Your task to perform on an android device: Search for energizer triple a on target.com, select the first entry, and add it to the cart. Image 0: 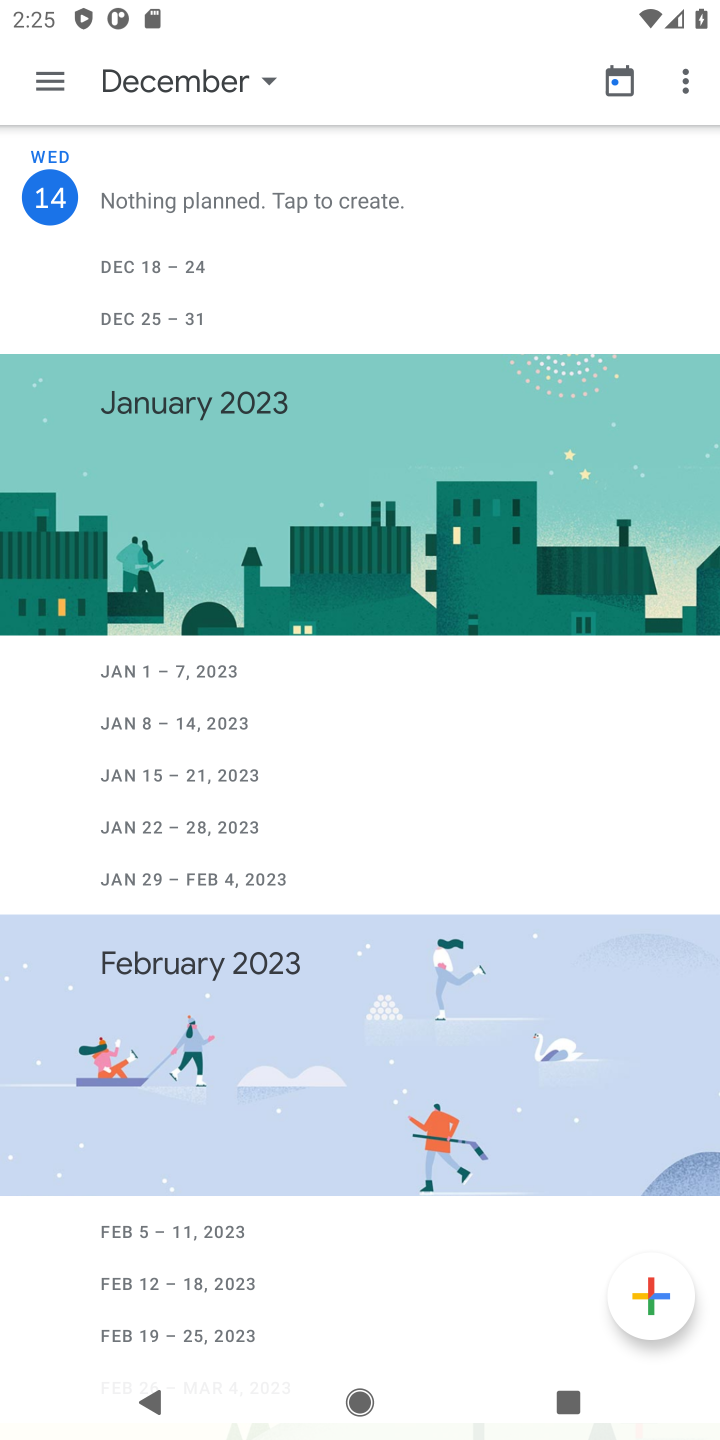
Step 0: press home button
Your task to perform on an android device: Search for energizer triple a on target.com, select the first entry, and add it to the cart. Image 1: 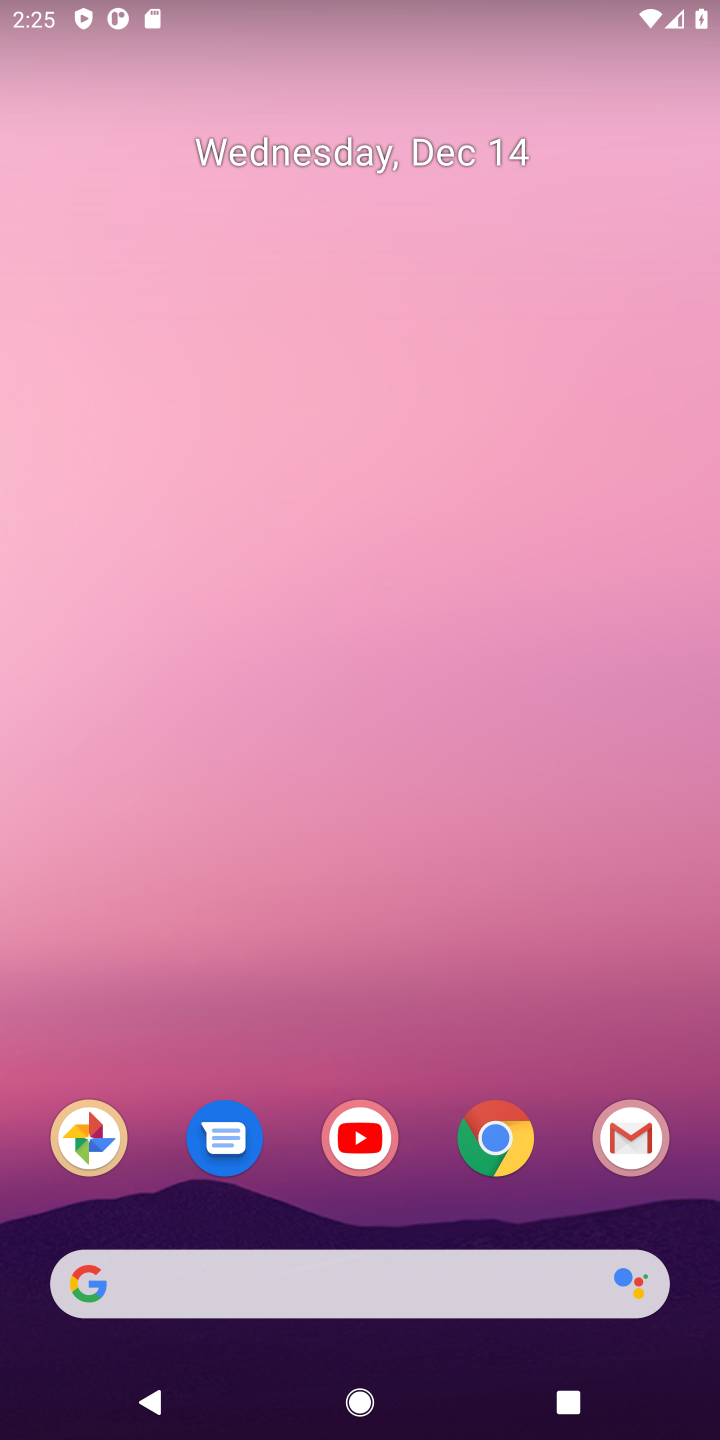
Step 1: click (509, 1147)
Your task to perform on an android device: Search for energizer triple a on target.com, select the first entry, and add it to the cart. Image 2: 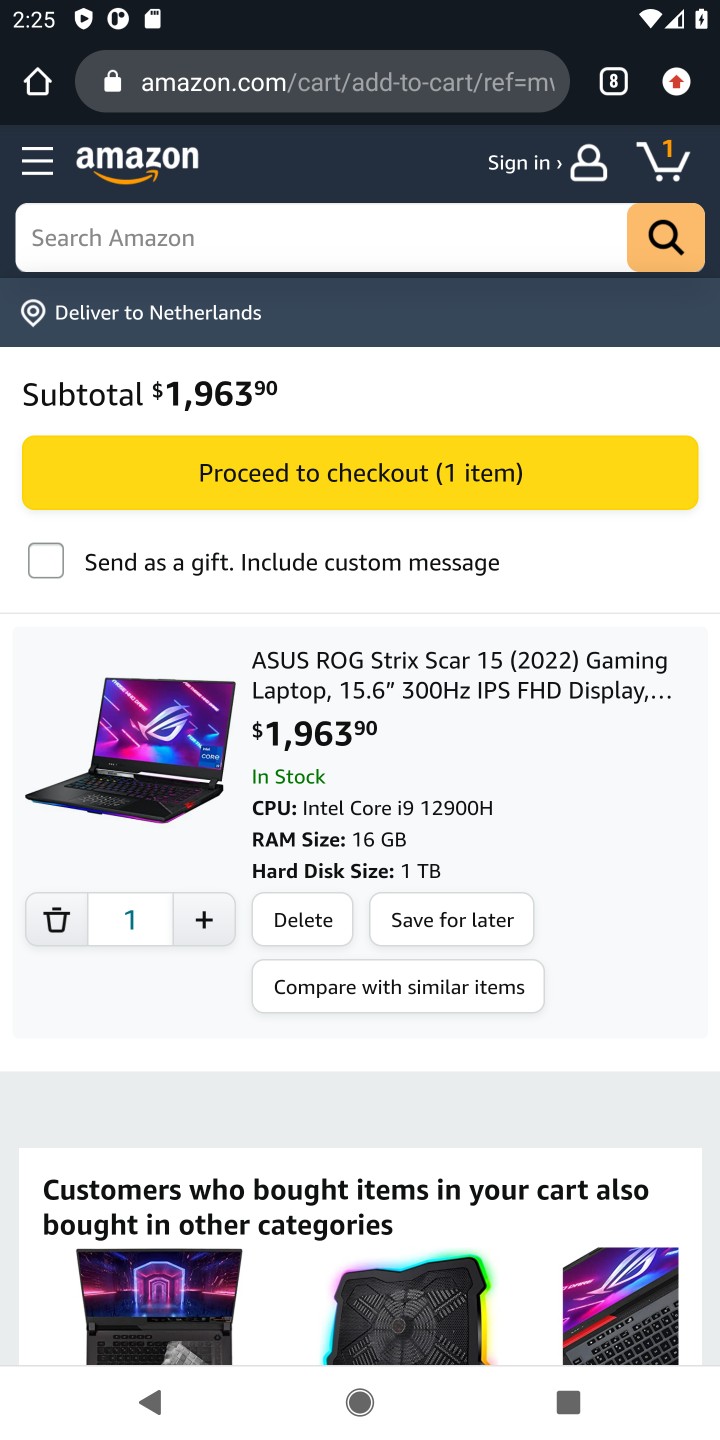
Step 2: click (626, 88)
Your task to perform on an android device: Search for energizer triple a on target.com, select the first entry, and add it to the cart. Image 3: 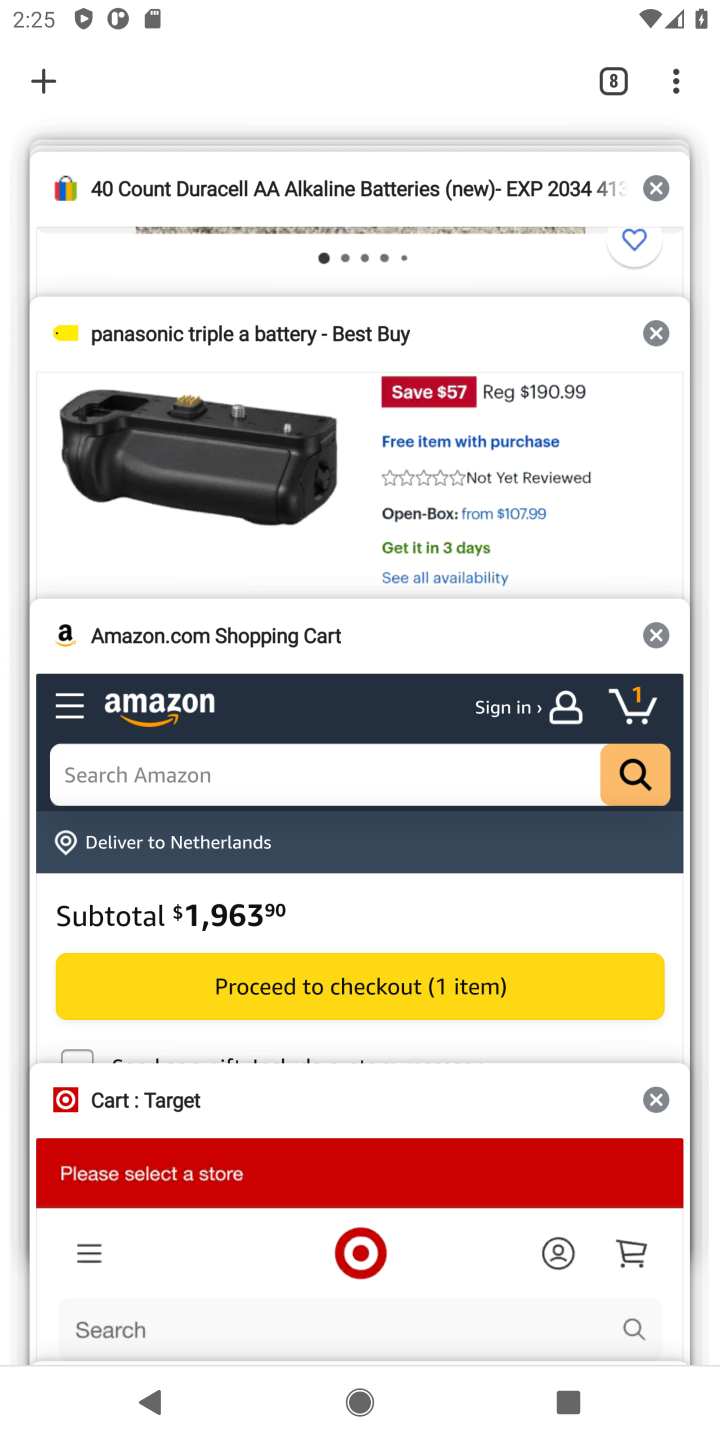
Step 3: click (150, 1163)
Your task to perform on an android device: Search for energizer triple a on target.com, select the first entry, and add it to the cart. Image 4: 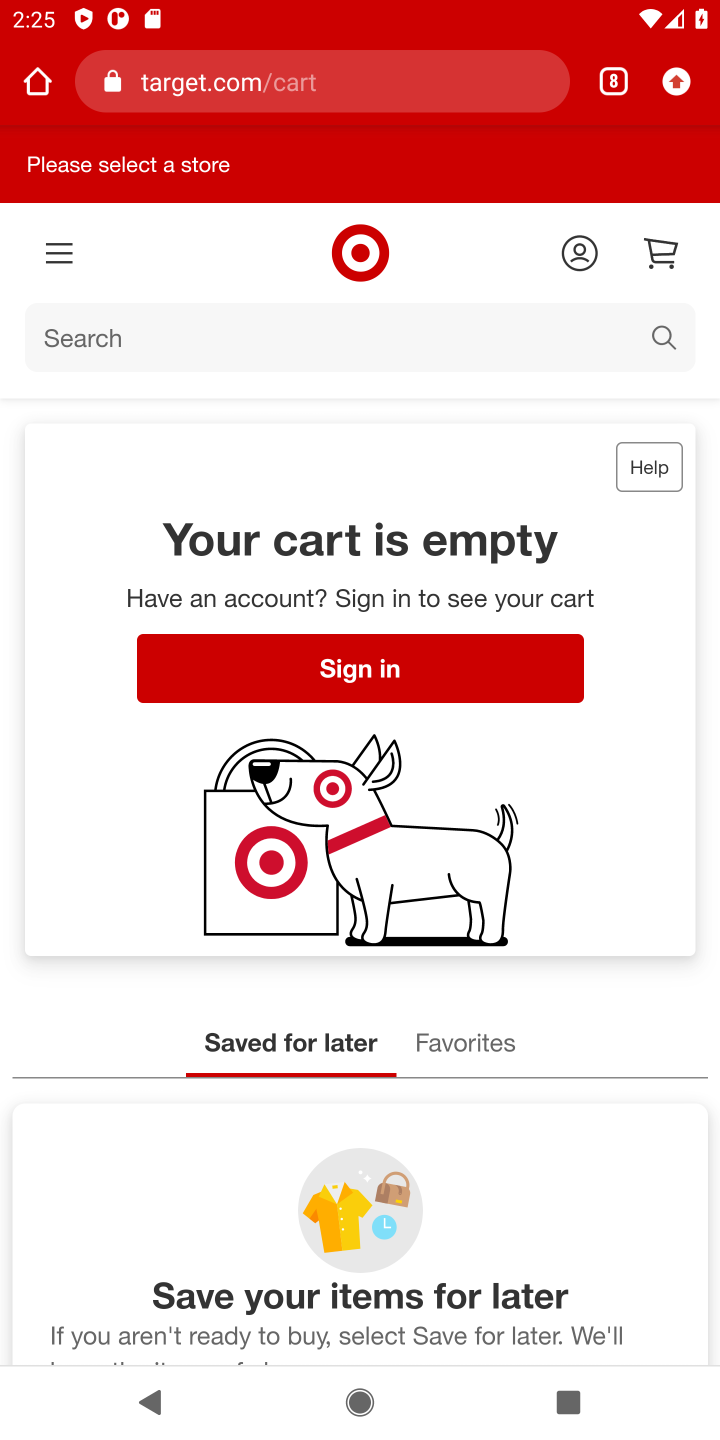
Step 4: click (189, 344)
Your task to perform on an android device: Search for energizer triple a on target.com, select the first entry, and add it to the cart. Image 5: 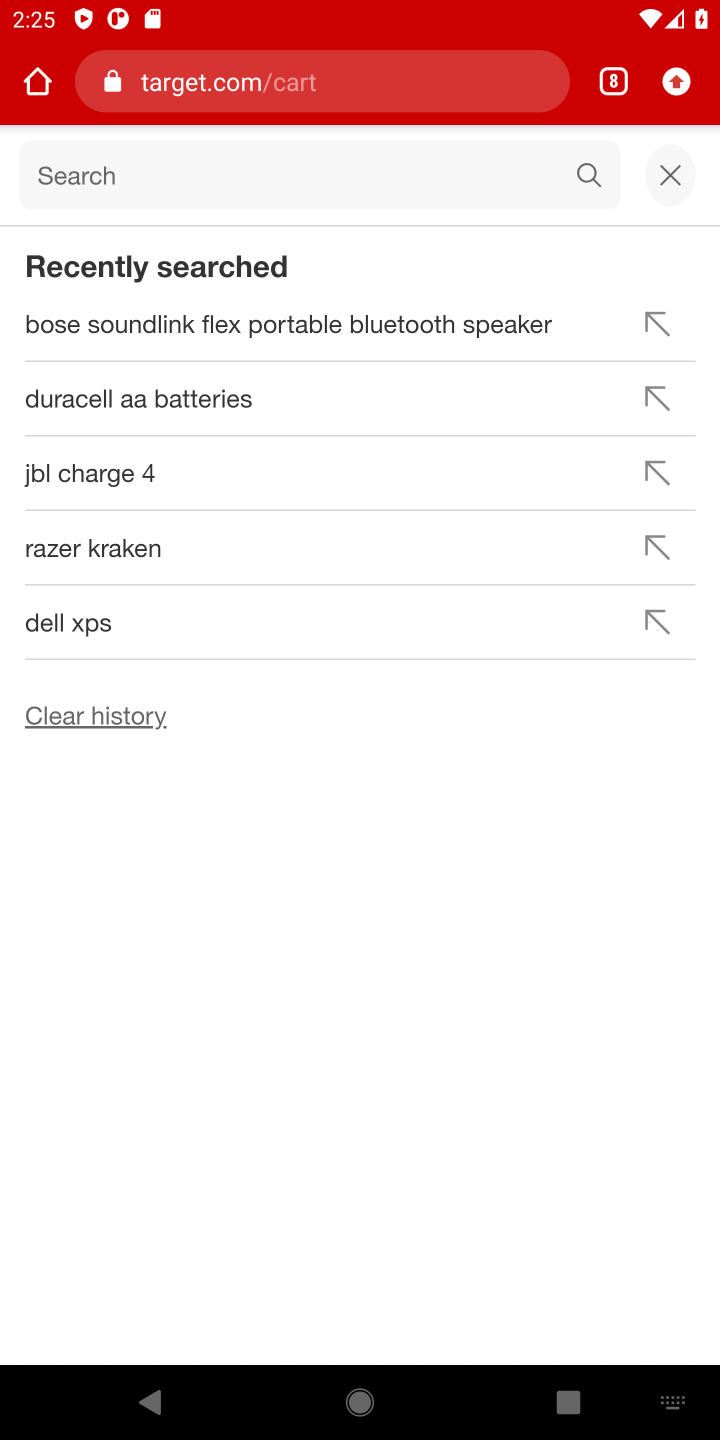
Step 5: type "energizer triple a"
Your task to perform on an android device: Search for energizer triple a on target.com, select the first entry, and add it to the cart. Image 6: 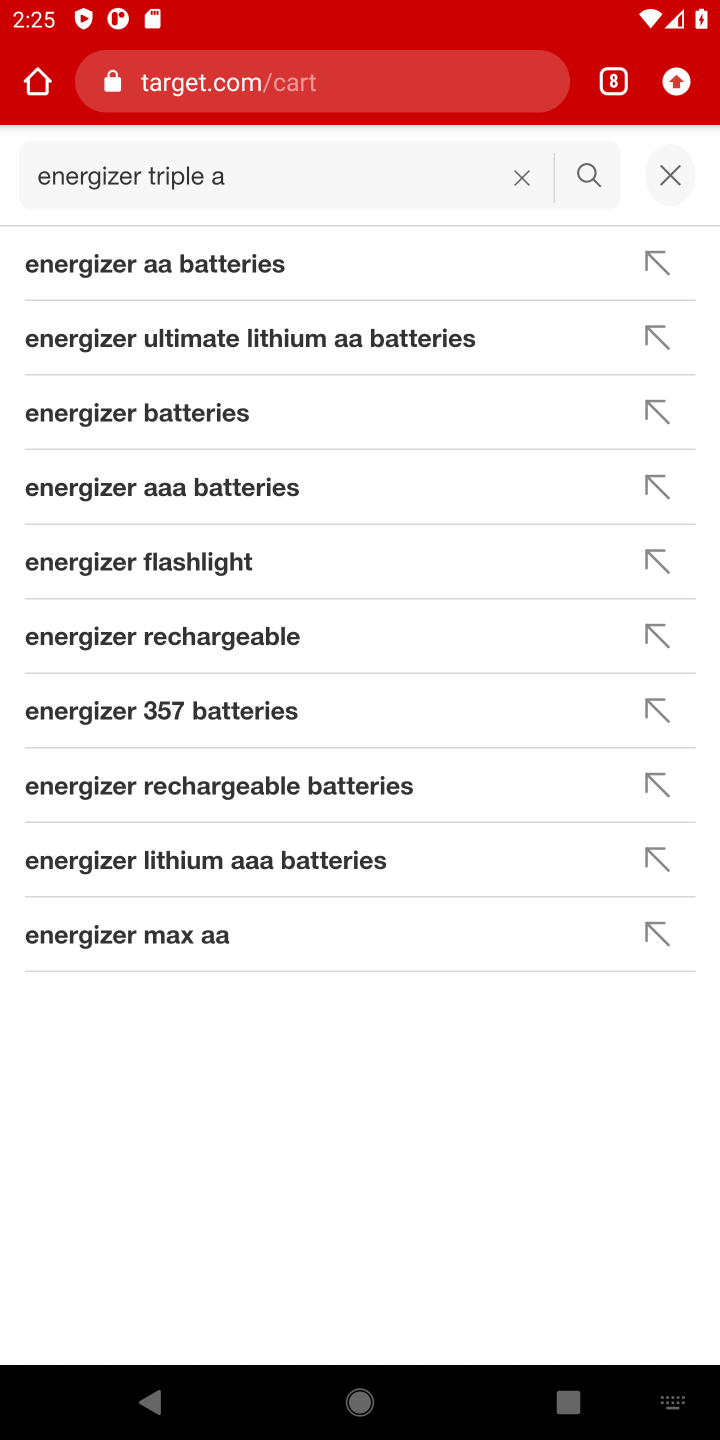
Step 6: click (201, 257)
Your task to perform on an android device: Search for energizer triple a on target.com, select the first entry, and add it to the cart. Image 7: 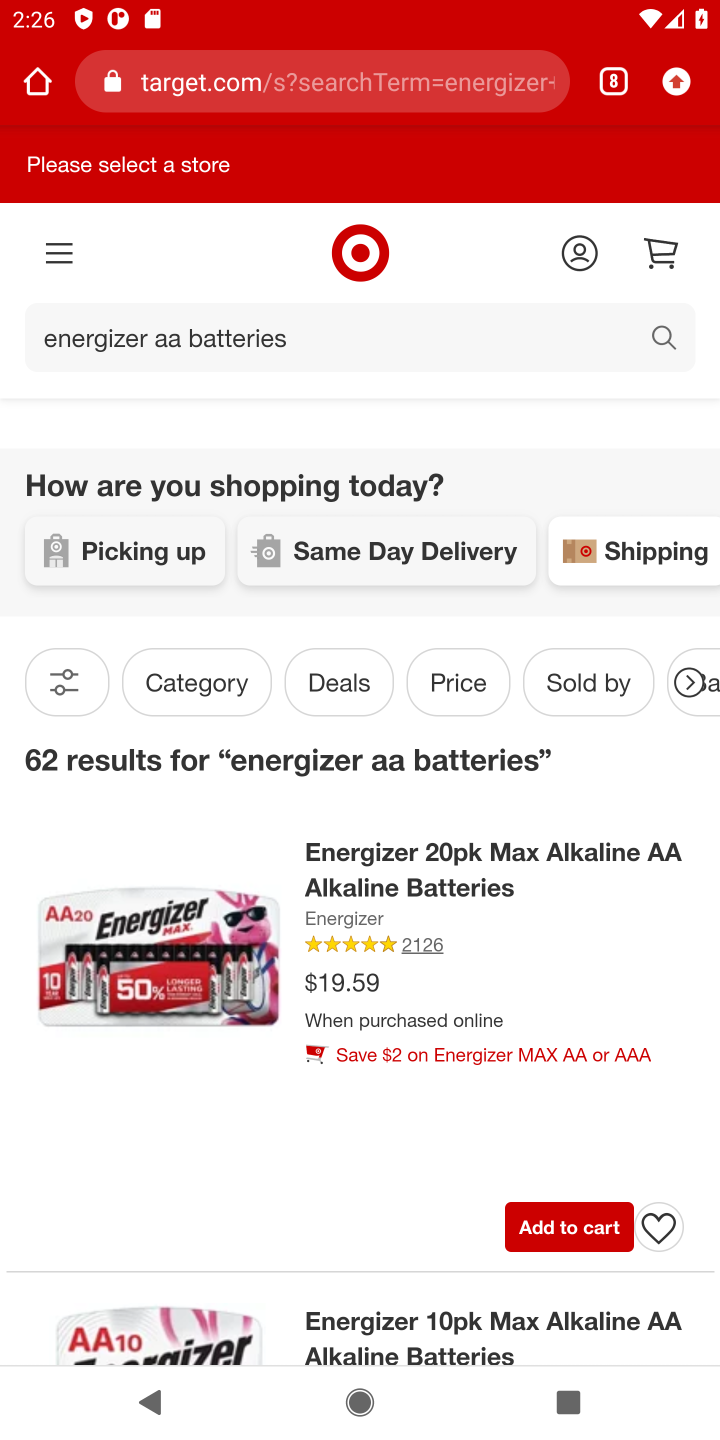
Step 7: click (568, 1219)
Your task to perform on an android device: Search for energizer triple a on target.com, select the first entry, and add it to the cart. Image 8: 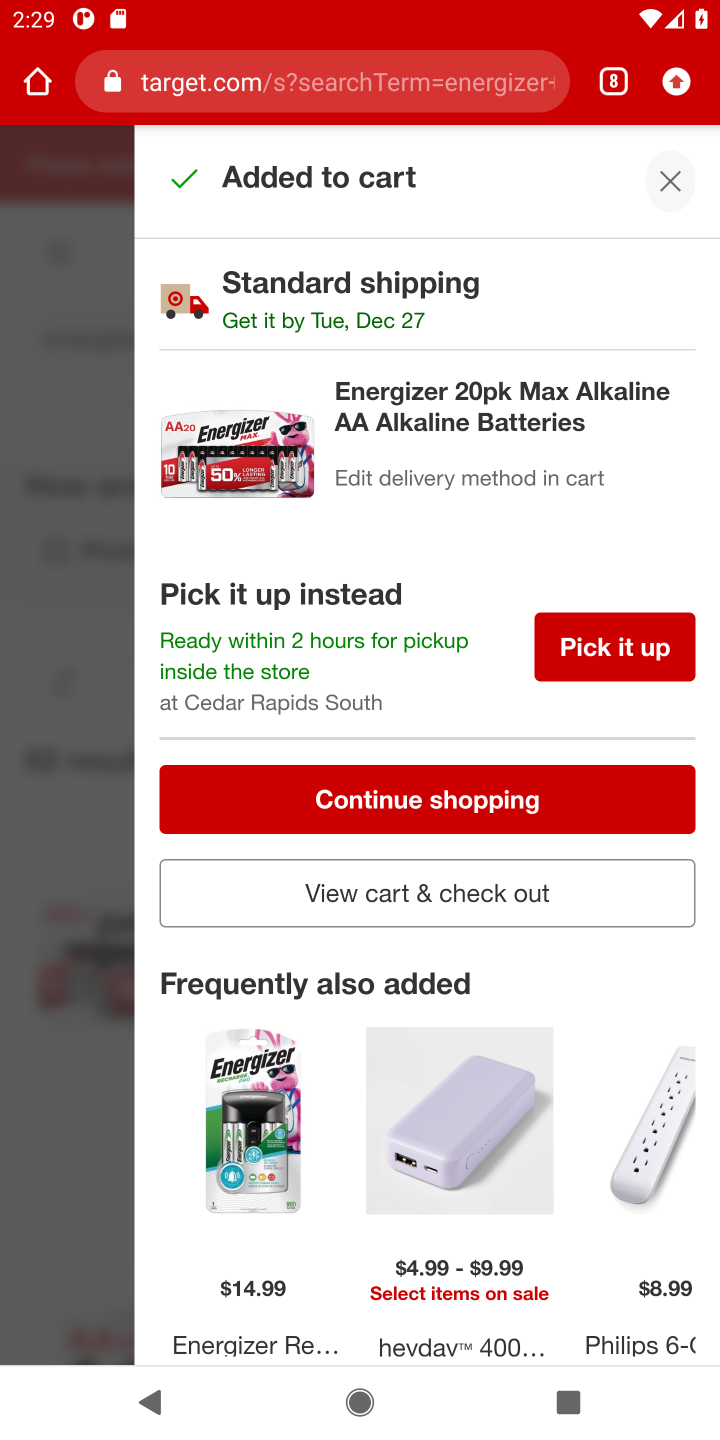
Step 8: task complete